Your task to perform on an android device: turn off sleep mode Image 0: 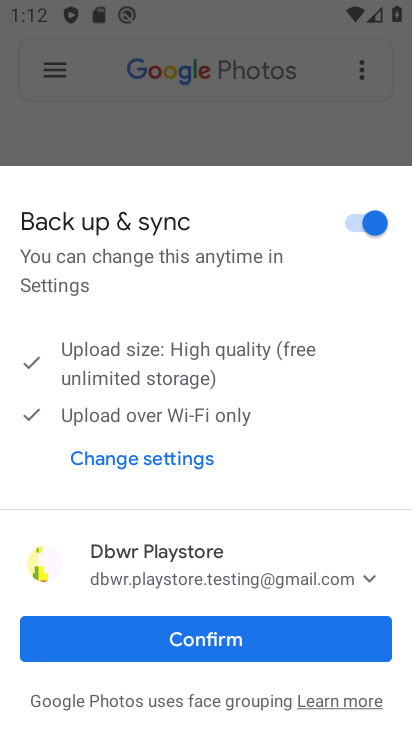
Step 0: press home button
Your task to perform on an android device: turn off sleep mode Image 1: 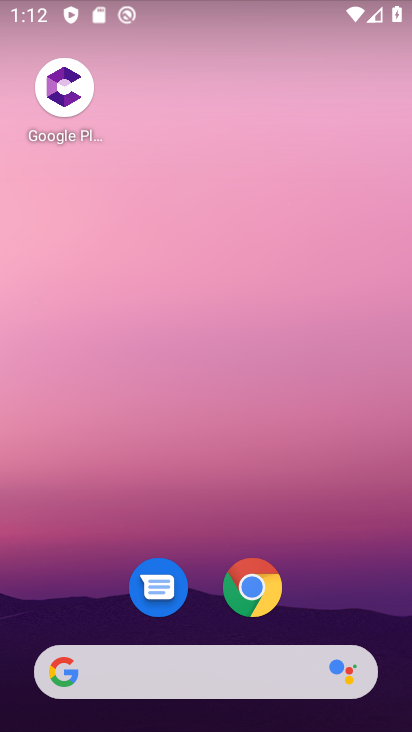
Step 1: drag from (203, 621) to (250, 92)
Your task to perform on an android device: turn off sleep mode Image 2: 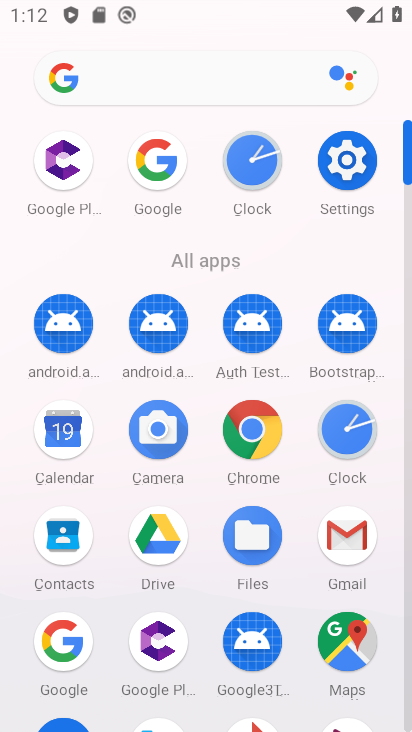
Step 2: click (346, 158)
Your task to perform on an android device: turn off sleep mode Image 3: 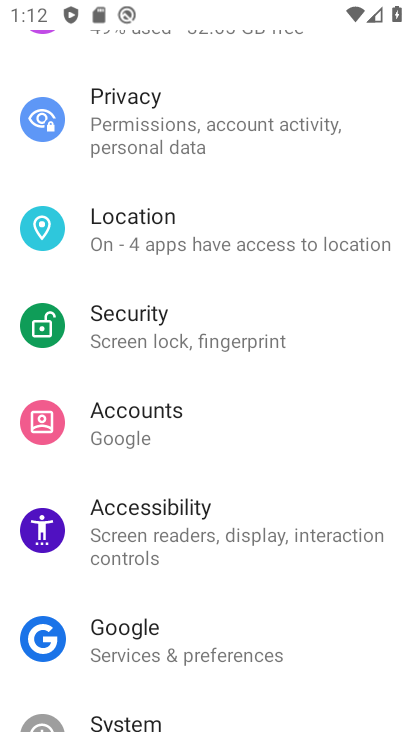
Step 3: drag from (177, 103) to (184, 664)
Your task to perform on an android device: turn off sleep mode Image 4: 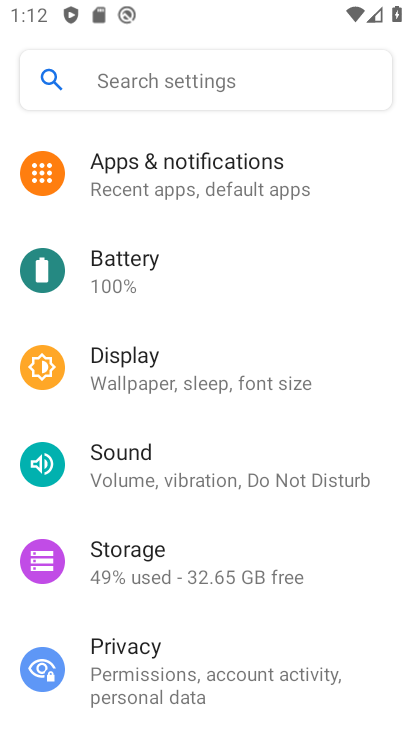
Step 4: click (164, 357)
Your task to perform on an android device: turn off sleep mode Image 5: 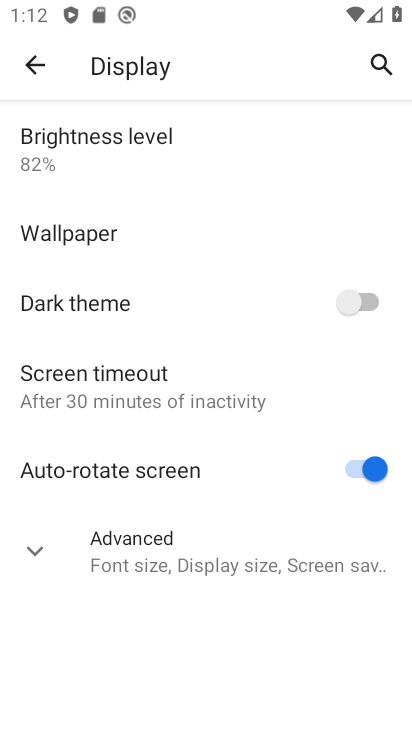
Step 5: click (34, 541)
Your task to perform on an android device: turn off sleep mode Image 6: 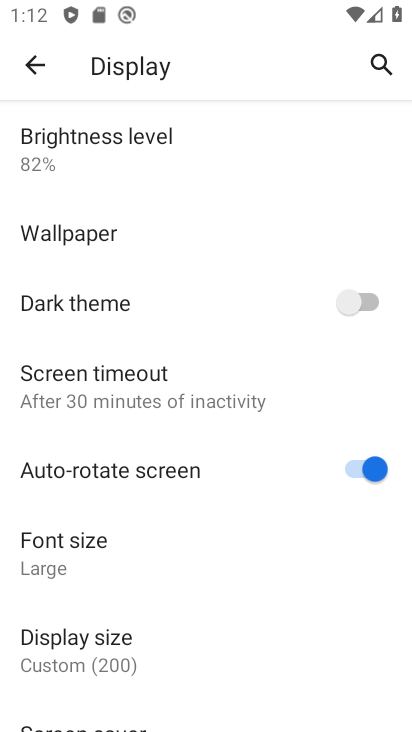
Step 6: task complete